Your task to perform on an android device: search for starred emails in the gmail app Image 0: 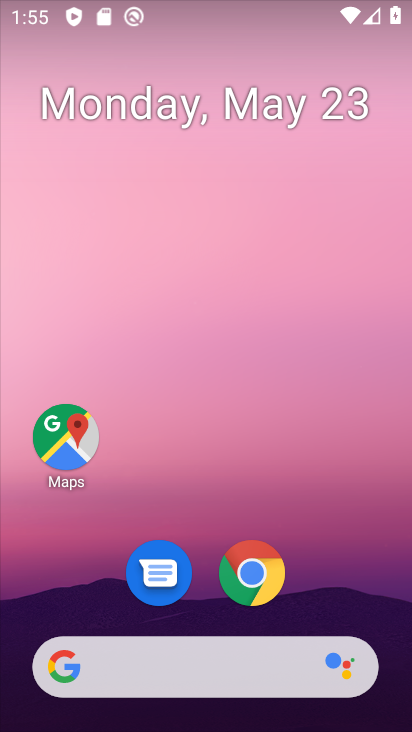
Step 0: drag from (380, 616) to (379, 200)
Your task to perform on an android device: search for starred emails in the gmail app Image 1: 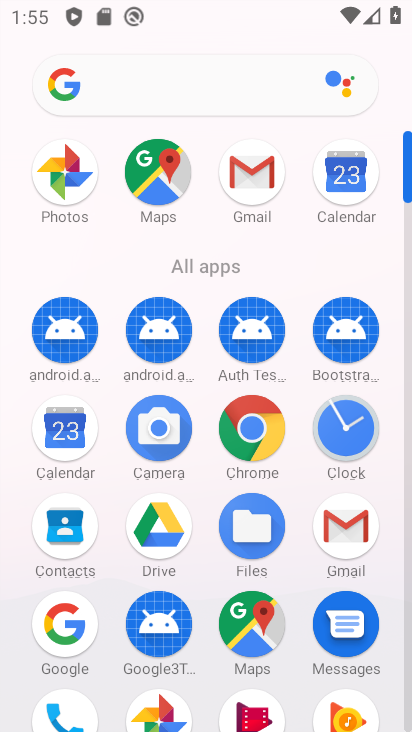
Step 1: drag from (390, 593) to (382, 356)
Your task to perform on an android device: search for starred emails in the gmail app Image 2: 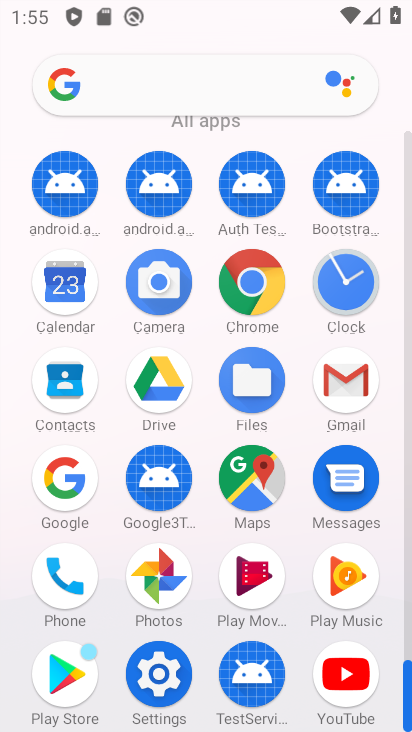
Step 2: click (353, 386)
Your task to perform on an android device: search for starred emails in the gmail app Image 3: 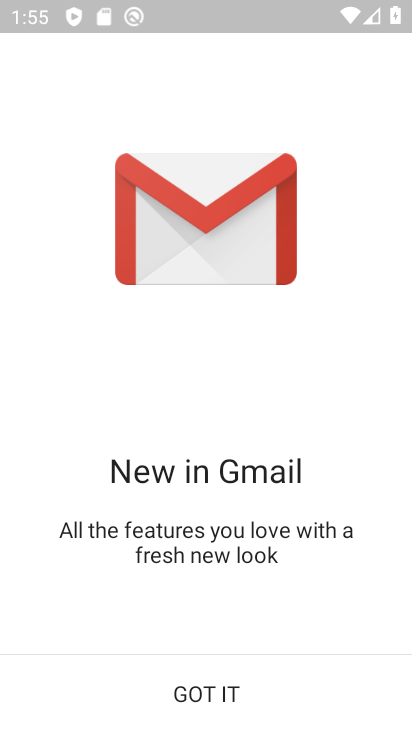
Step 3: click (211, 696)
Your task to perform on an android device: search for starred emails in the gmail app Image 4: 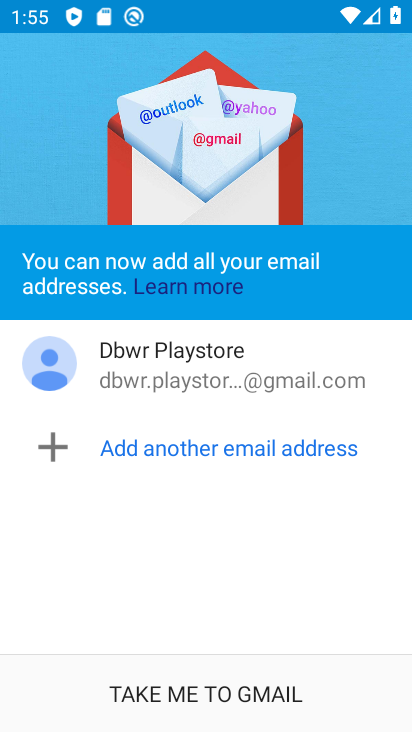
Step 4: click (211, 696)
Your task to perform on an android device: search for starred emails in the gmail app Image 5: 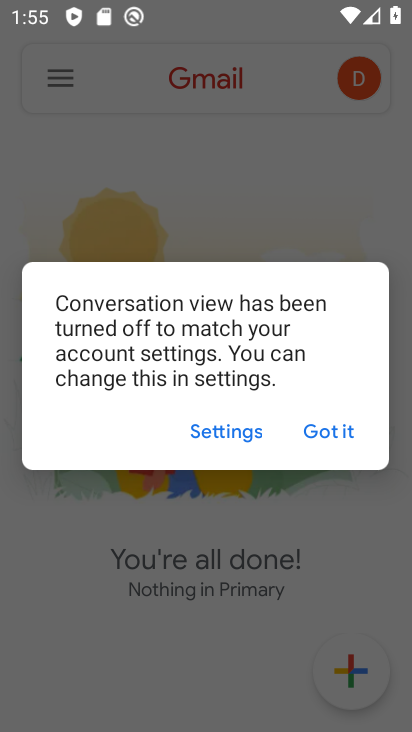
Step 5: click (340, 424)
Your task to perform on an android device: search for starred emails in the gmail app Image 6: 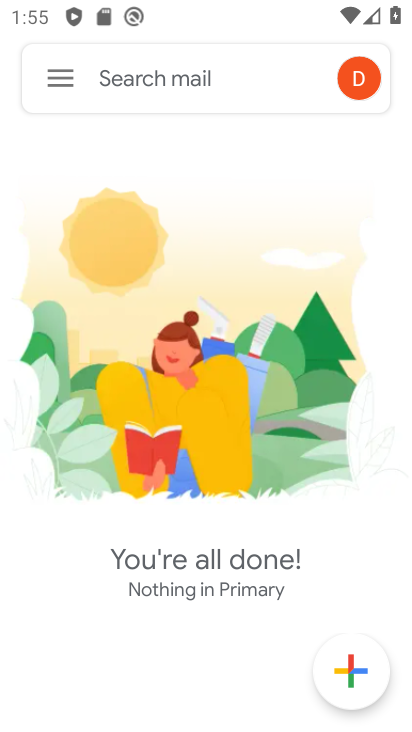
Step 6: click (65, 86)
Your task to perform on an android device: search for starred emails in the gmail app Image 7: 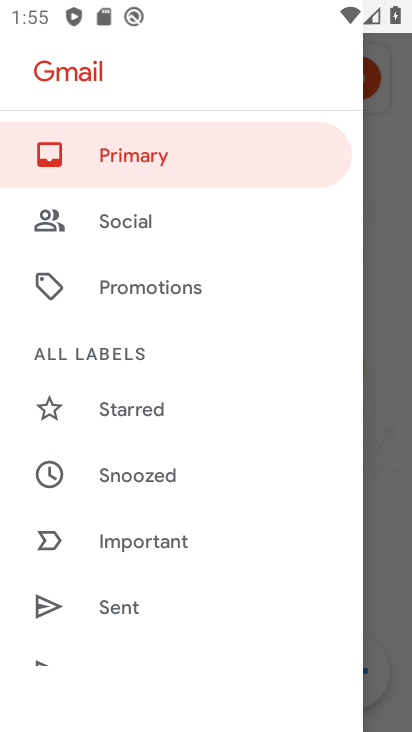
Step 7: drag from (269, 550) to (281, 427)
Your task to perform on an android device: search for starred emails in the gmail app Image 8: 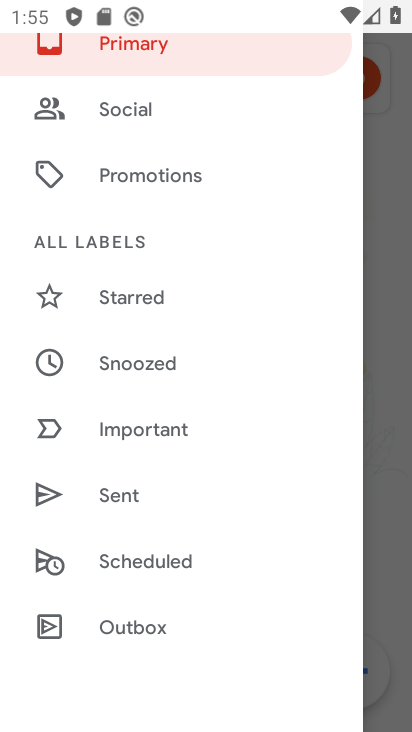
Step 8: drag from (291, 580) to (308, 428)
Your task to perform on an android device: search for starred emails in the gmail app Image 9: 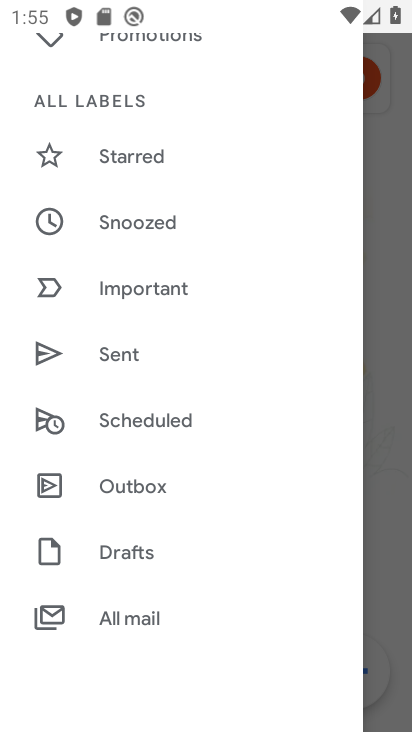
Step 9: drag from (286, 615) to (280, 457)
Your task to perform on an android device: search for starred emails in the gmail app Image 10: 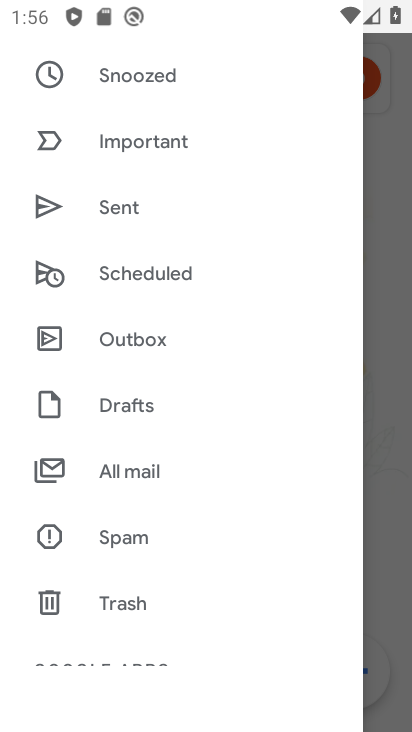
Step 10: drag from (303, 606) to (313, 431)
Your task to perform on an android device: search for starred emails in the gmail app Image 11: 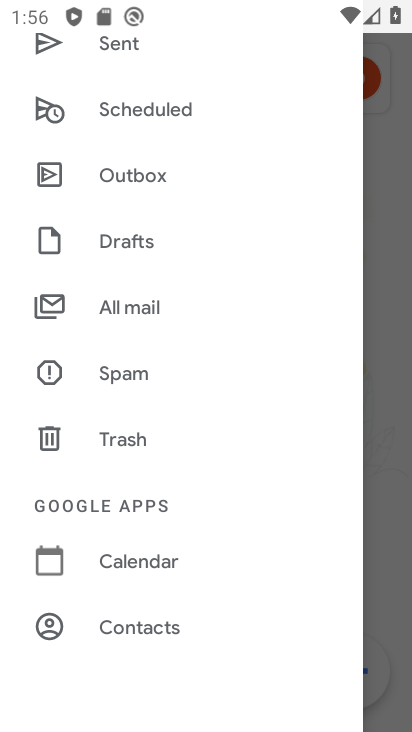
Step 11: drag from (312, 588) to (297, 443)
Your task to perform on an android device: search for starred emails in the gmail app Image 12: 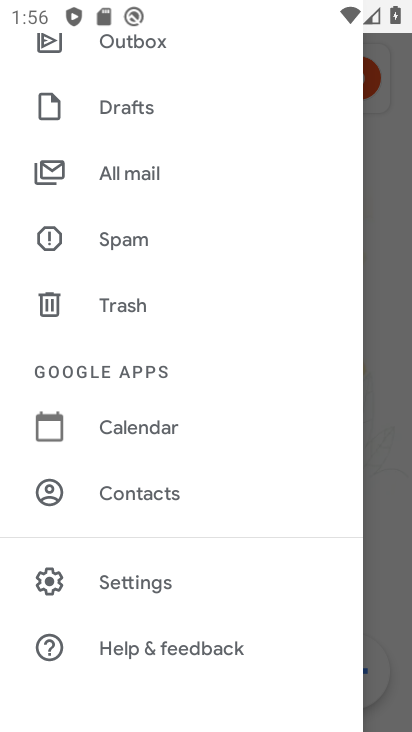
Step 12: drag from (306, 624) to (310, 485)
Your task to perform on an android device: search for starred emails in the gmail app Image 13: 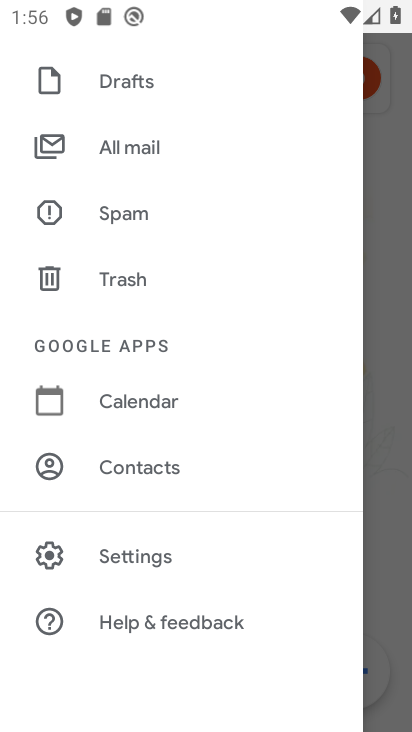
Step 13: drag from (318, 355) to (311, 505)
Your task to perform on an android device: search for starred emails in the gmail app Image 14: 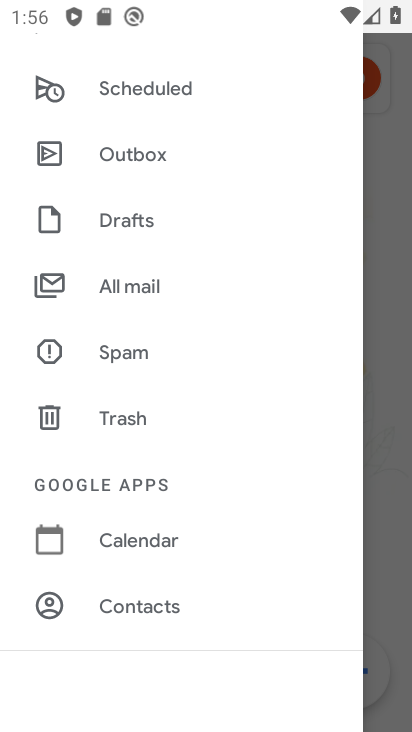
Step 14: drag from (296, 319) to (270, 447)
Your task to perform on an android device: search for starred emails in the gmail app Image 15: 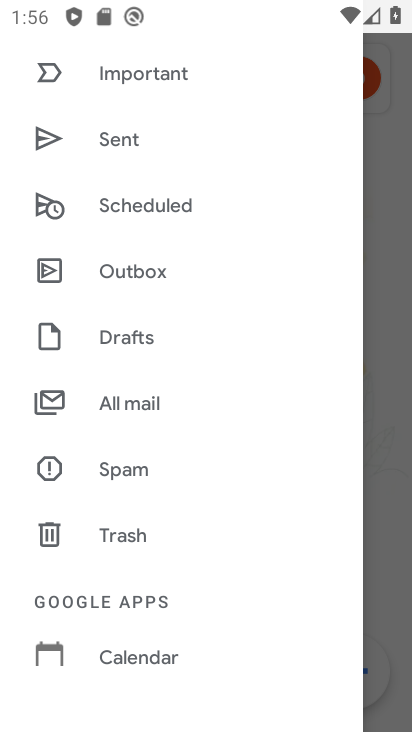
Step 15: drag from (288, 575) to (296, 438)
Your task to perform on an android device: search for starred emails in the gmail app Image 16: 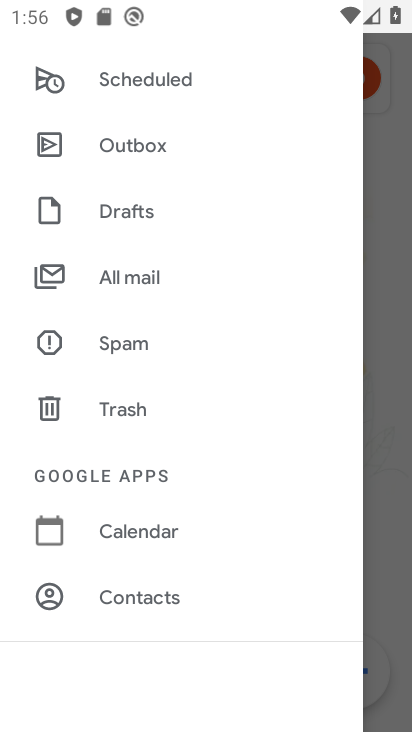
Step 16: drag from (248, 586) to (260, 448)
Your task to perform on an android device: search for starred emails in the gmail app Image 17: 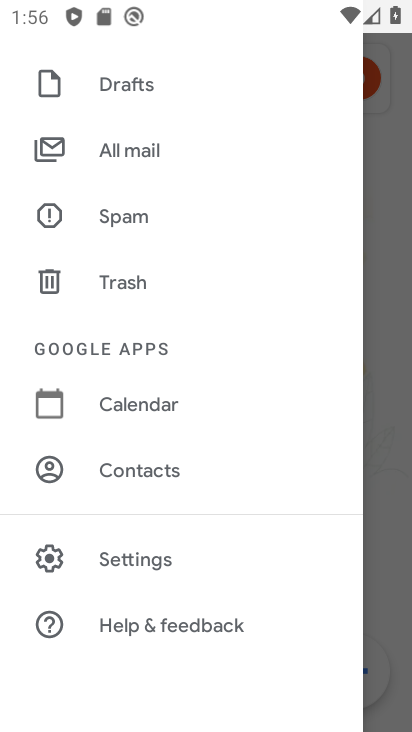
Step 17: drag from (219, 205) to (217, 490)
Your task to perform on an android device: search for starred emails in the gmail app Image 18: 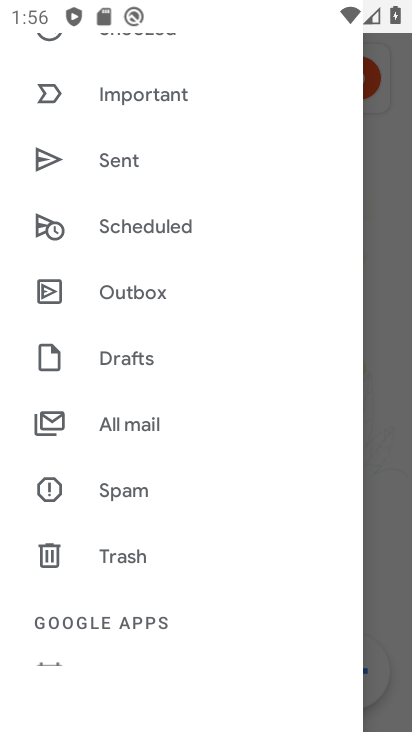
Step 18: drag from (265, 186) to (245, 472)
Your task to perform on an android device: search for starred emails in the gmail app Image 19: 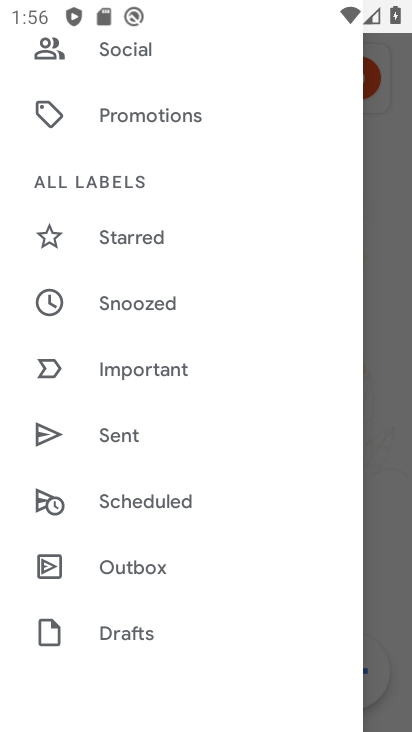
Step 19: click (145, 239)
Your task to perform on an android device: search for starred emails in the gmail app Image 20: 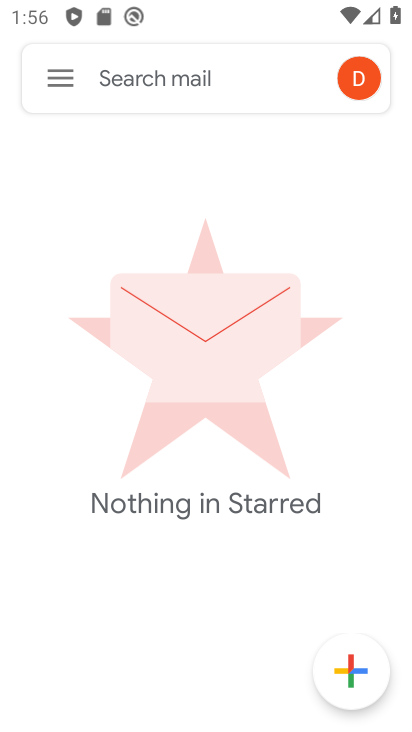
Step 20: task complete